Your task to perform on an android device: What's the weather going to be tomorrow? Image 0: 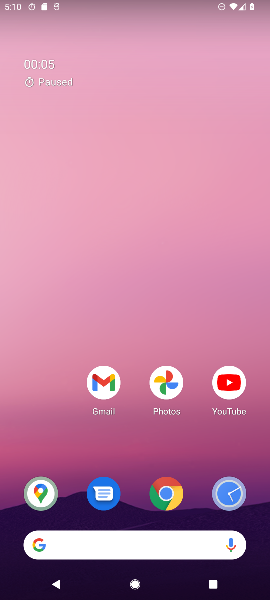
Step 0: drag from (171, 569) to (151, 355)
Your task to perform on an android device: What's the weather going to be tomorrow? Image 1: 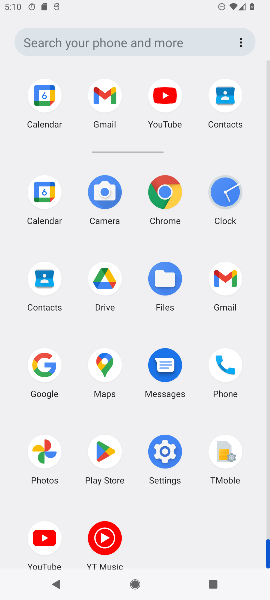
Step 1: click (170, 195)
Your task to perform on an android device: What's the weather going to be tomorrow? Image 2: 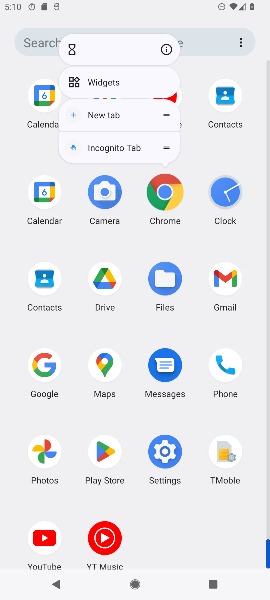
Step 2: click (170, 195)
Your task to perform on an android device: What's the weather going to be tomorrow? Image 3: 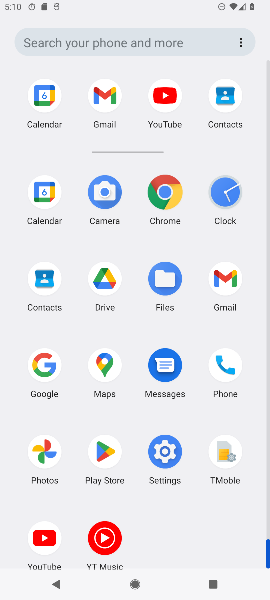
Step 3: click (170, 195)
Your task to perform on an android device: What's the weather going to be tomorrow? Image 4: 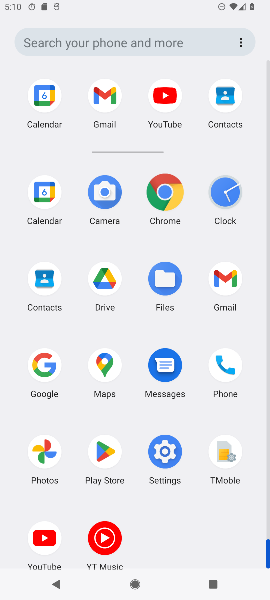
Step 4: click (170, 195)
Your task to perform on an android device: What's the weather going to be tomorrow? Image 5: 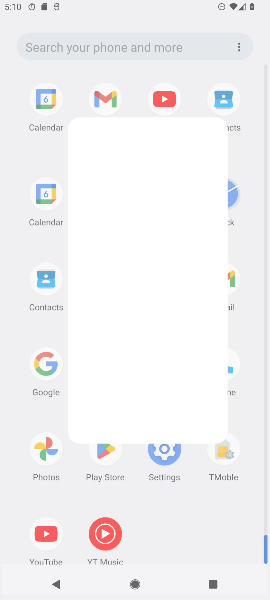
Step 5: click (169, 196)
Your task to perform on an android device: What's the weather going to be tomorrow? Image 6: 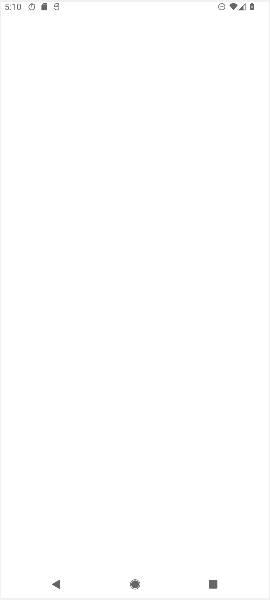
Step 6: click (170, 197)
Your task to perform on an android device: What's the weather going to be tomorrow? Image 7: 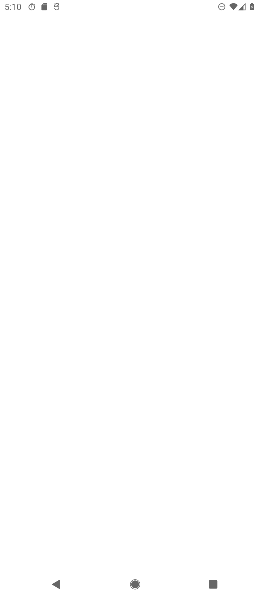
Step 7: click (170, 197)
Your task to perform on an android device: What's the weather going to be tomorrow? Image 8: 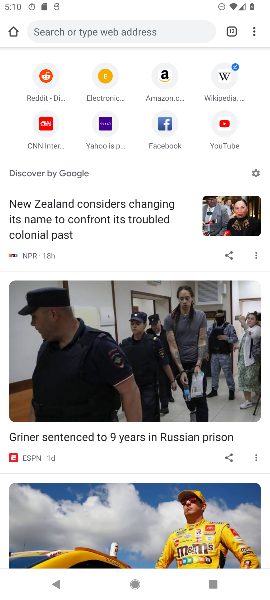
Step 8: click (63, 23)
Your task to perform on an android device: What's the weather going to be tomorrow? Image 9: 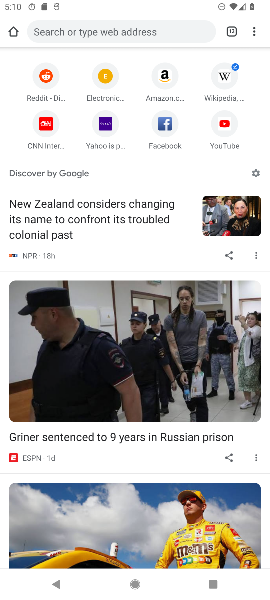
Step 9: click (74, 32)
Your task to perform on an android device: What's the weather going to be tomorrow? Image 10: 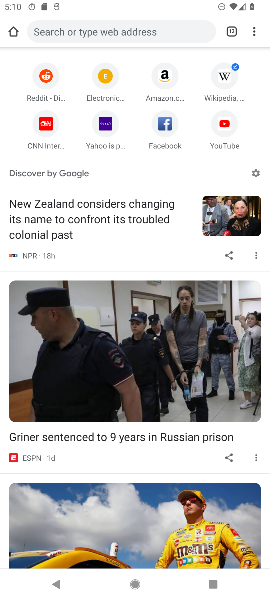
Step 10: click (74, 32)
Your task to perform on an android device: What's the weather going to be tomorrow? Image 11: 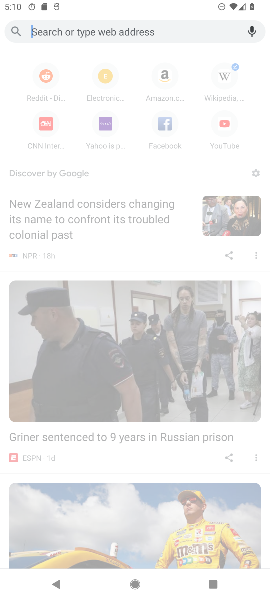
Step 11: click (74, 32)
Your task to perform on an android device: What's the weather going to be tomorrow? Image 12: 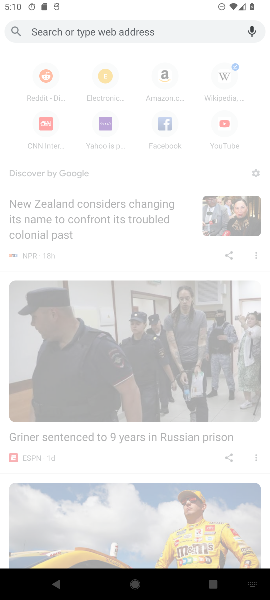
Step 12: click (74, 32)
Your task to perform on an android device: What's the weather going to be tomorrow? Image 13: 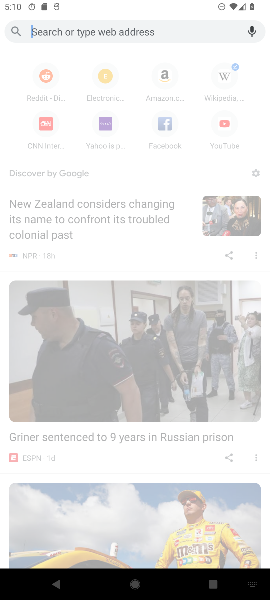
Step 13: click (74, 32)
Your task to perform on an android device: What's the weather going to be tomorrow? Image 14: 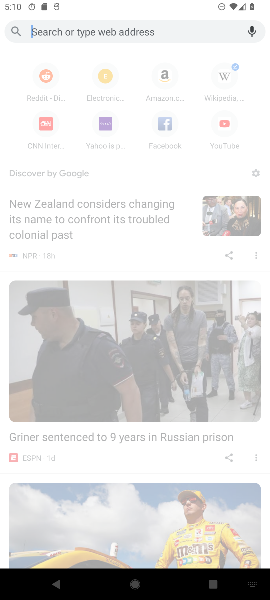
Step 14: click (75, 35)
Your task to perform on an android device: What's the weather going to be tomorrow? Image 15: 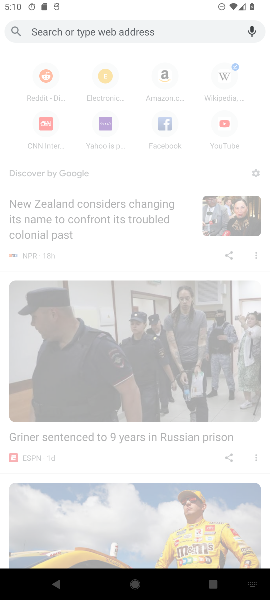
Step 15: click (75, 35)
Your task to perform on an android device: What's the weather going to be tomorrow? Image 16: 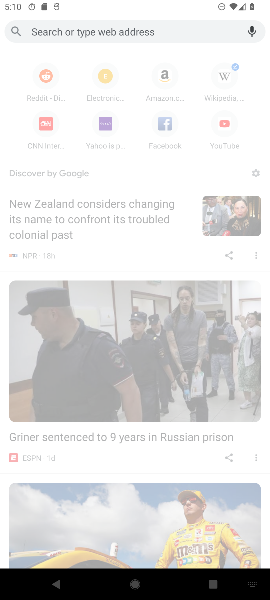
Step 16: click (75, 35)
Your task to perform on an android device: What's the weather going to be tomorrow? Image 17: 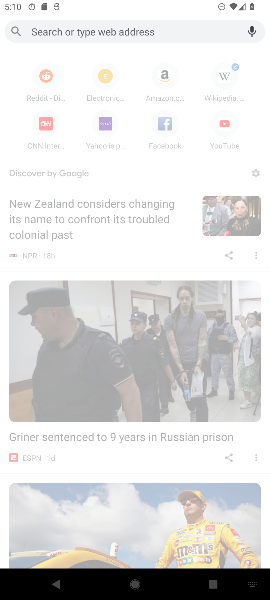
Step 17: click (74, 33)
Your task to perform on an android device: What's the weather going to be tomorrow? Image 18: 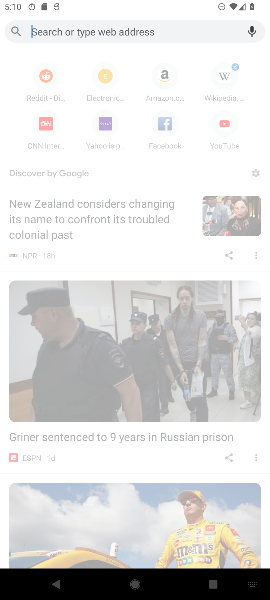
Step 18: click (74, 33)
Your task to perform on an android device: What's the weather going to be tomorrow? Image 19: 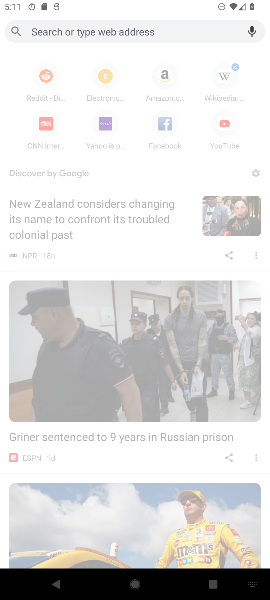
Step 19: type "weathyer going to be this tomorrow\"
Your task to perform on an android device: What's the weather going to be tomorrow? Image 20: 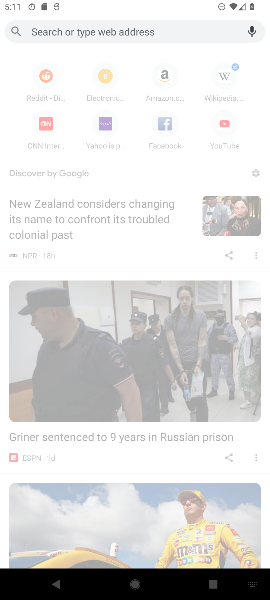
Step 20: click (166, 30)
Your task to perform on an android device: What's the weather going to be tomorrow? Image 21: 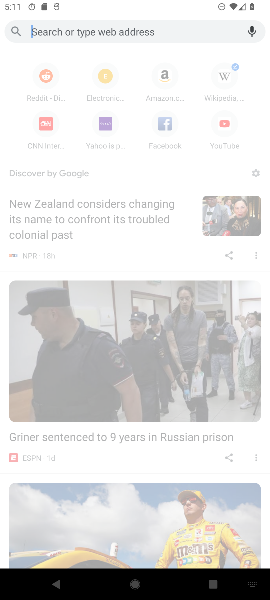
Step 21: click (166, 30)
Your task to perform on an android device: What's the weather going to be tomorrow? Image 22: 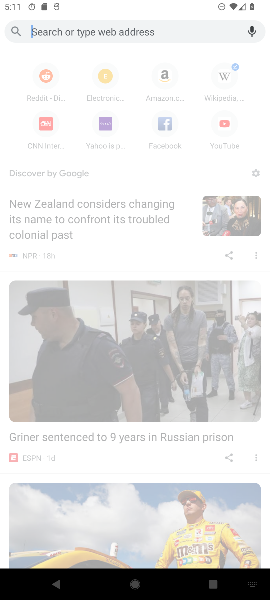
Step 22: click (166, 30)
Your task to perform on an android device: What's the weather going to be tomorrow? Image 23: 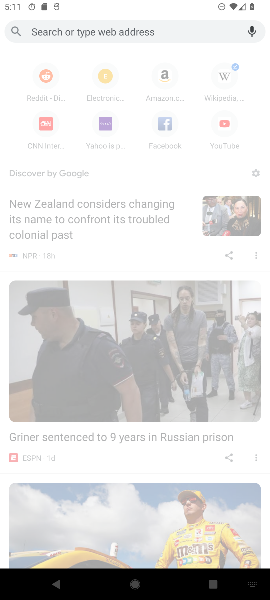
Step 23: click (165, 30)
Your task to perform on an android device: What's the weather going to be tomorrow? Image 24: 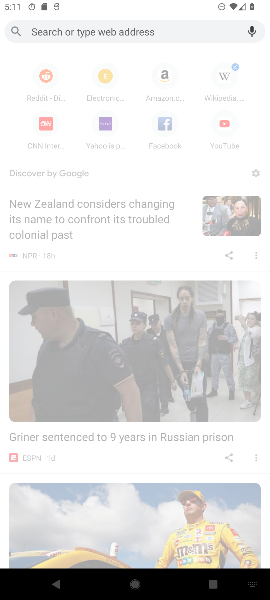
Step 24: type "weather to tomorrow"
Your task to perform on an android device: What's the weather going to be tomorrow? Image 25: 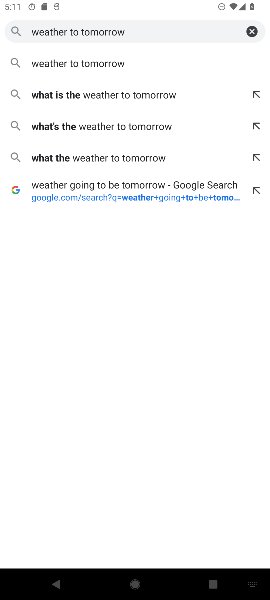
Step 25: click (96, 56)
Your task to perform on an android device: What's the weather going to be tomorrow? Image 26: 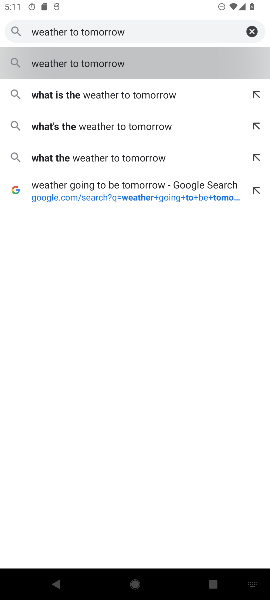
Step 26: click (97, 60)
Your task to perform on an android device: What's the weather going to be tomorrow? Image 27: 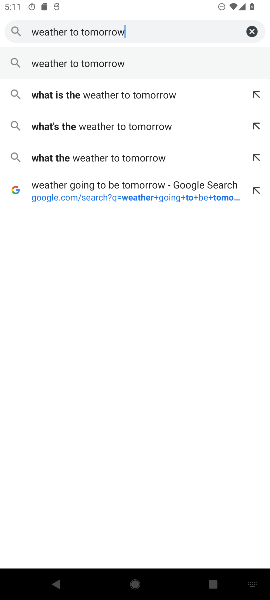
Step 27: click (103, 68)
Your task to perform on an android device: What's the weather going to be tomorrow? Image 28: 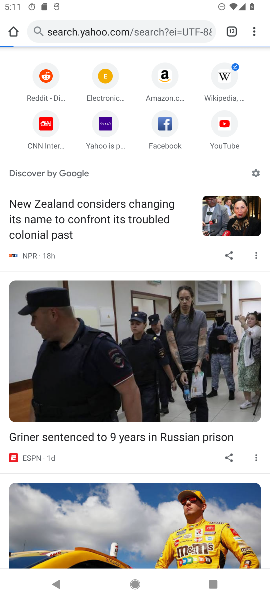
Step 28: click (107, 66)
Your task to perform on an android device: What's the weather going to be tomorrow? Image 29: 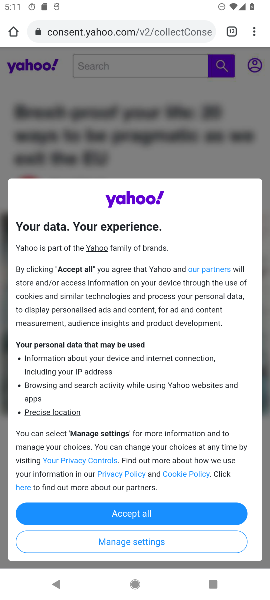
Step 29: task complete